Your task to perform on an android device: turn on airplane mode Image 0: 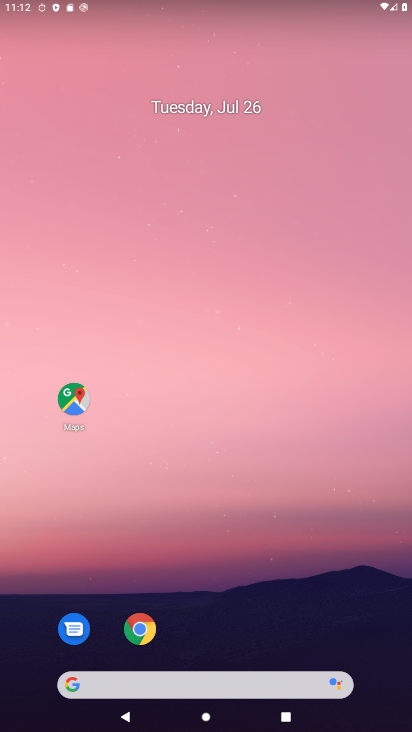
Step 0: drag from (307, 656) to (362, 83)
Your task to perform on an android device: turn on airplane mode Image 1: 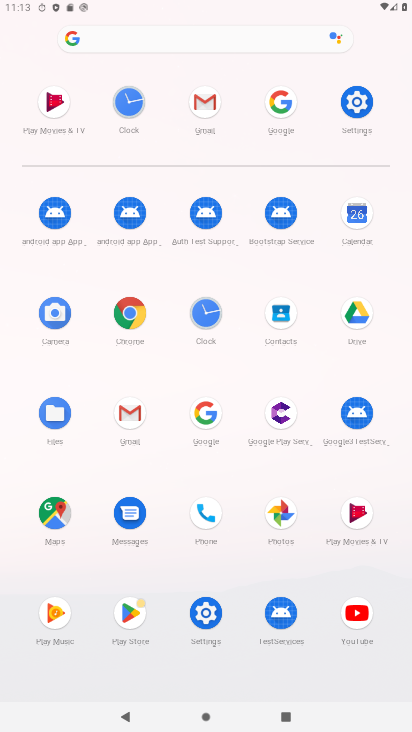
Step 1: drag from (200, 8) to (314, 610)
Your task to perform on an android device: turn on airplane mode Image 2: 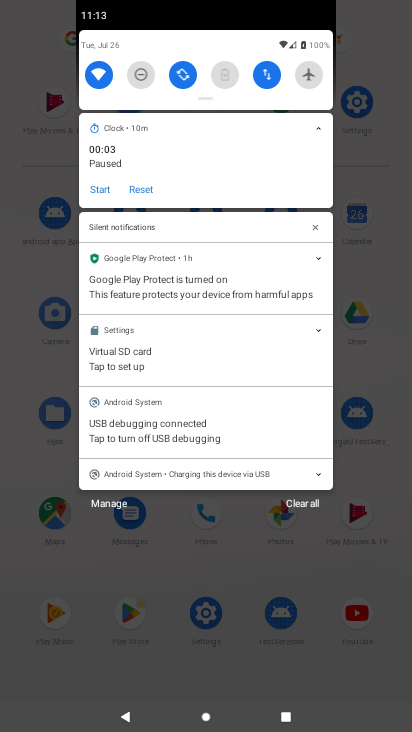
Step 2: click (303, 74)
Your task to perform on an android device: turn on airplane mode Image 3: 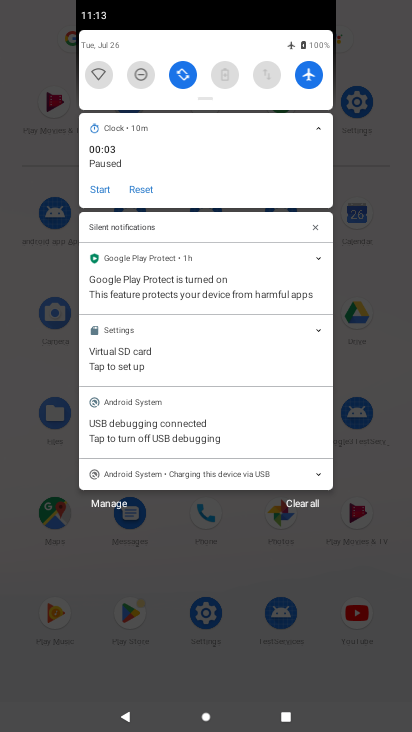
Step 3: task complete